Your task to perform on an android device: check storage Image 0: 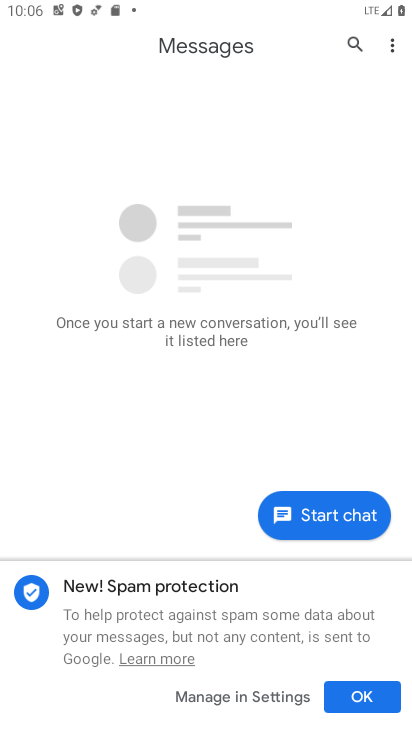
Step 0: press home button
Your task to perform on an android device: check storage Image 1: 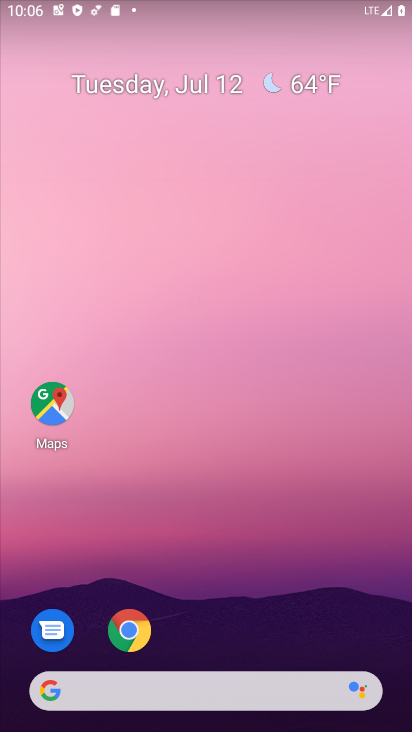
Step 1: drag from (261, 587) to (305, 110)
Your task to perform on an android device: check storage Image 2: 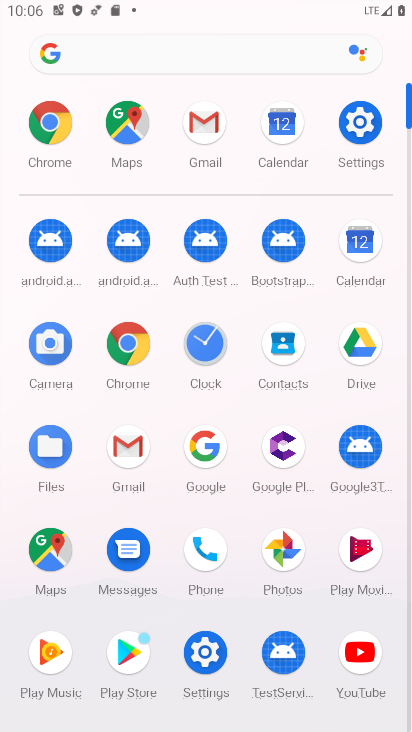
Step 2: click (365, 144)
Your task to perform on an android device: check storage Image 3: 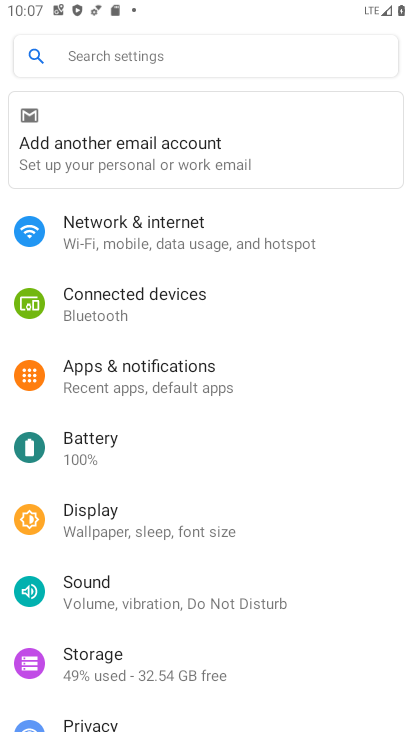
Step 3: click (180, 667)
Your task to perform on an android device: check storage Image 4: 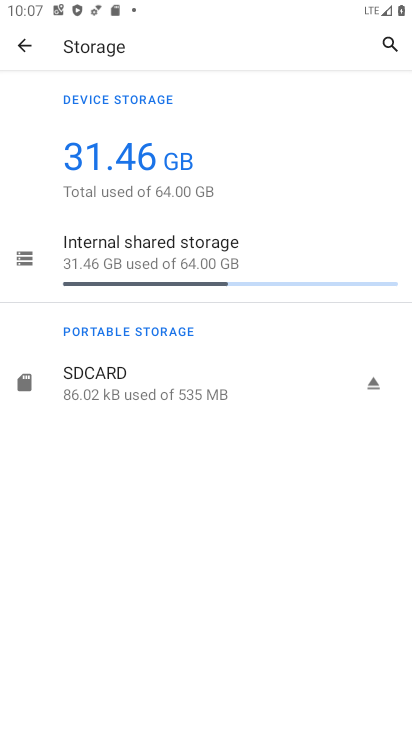
Step 4: click (207, 267)
Your task to perform on an android device: check storage Image 5: 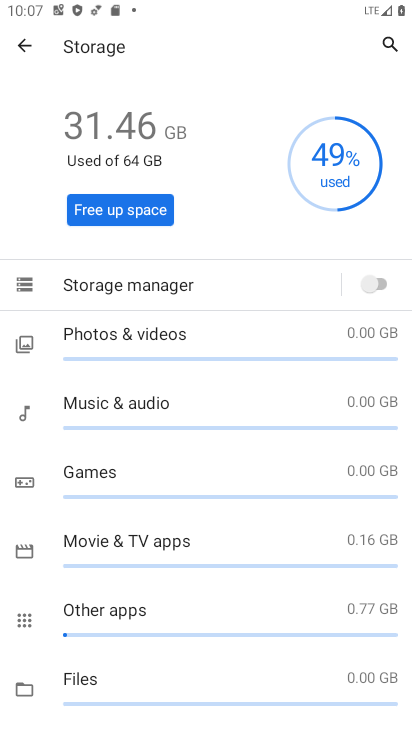
Step 5: task complete